Your task to perform on an android device: Go to wifi settings Image 0: 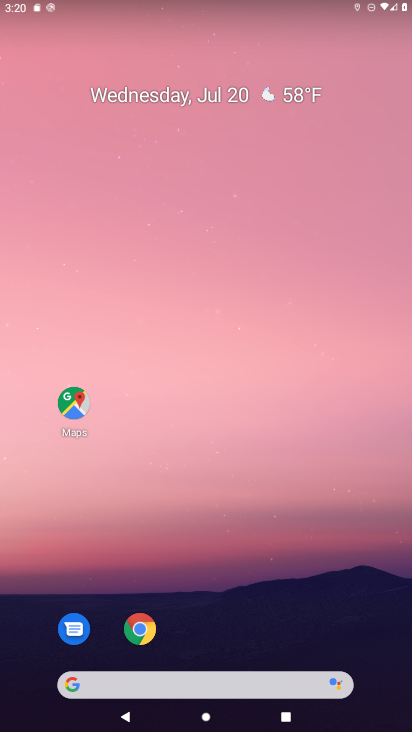
Step 0: drag from (191, 2) to (224, 459)
Your task to perform on an android device: Go to wifi settings Image 1: 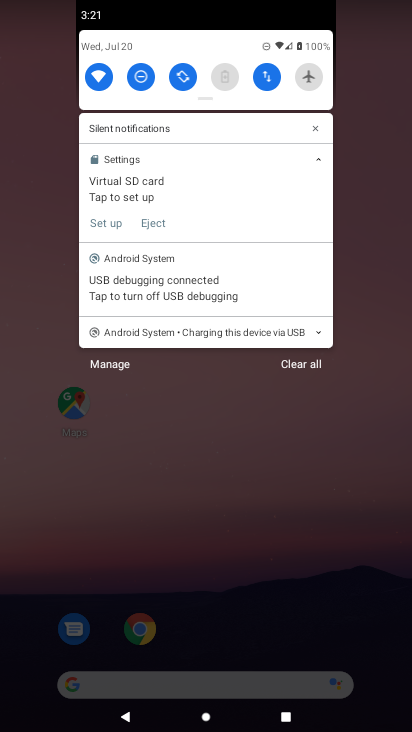
Step 1: click (98, 71)
Your task to perform on an android device: Go to wifi settings Image 2: 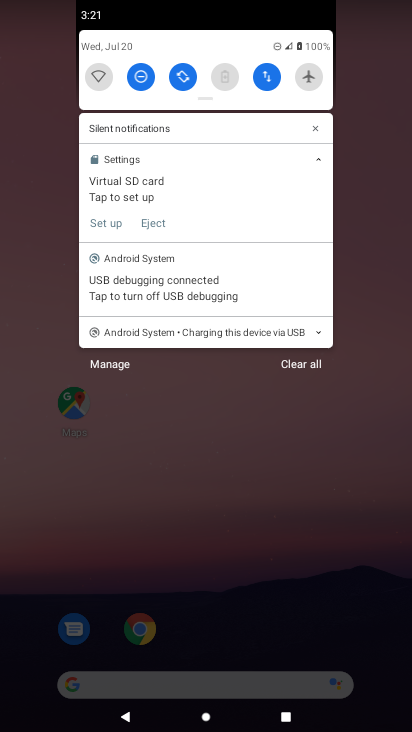
Step 2: click (98, 71)
Your task to perform on an android device: Go to wifi settings Image 3: 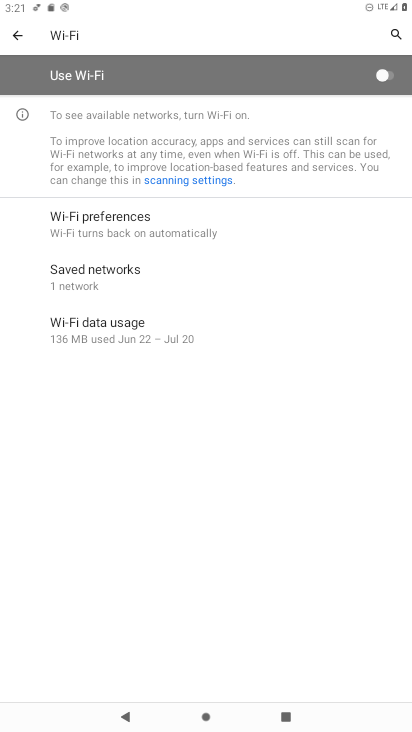
Step 3: click (230, 64)
Your task to perform on an android device: Go to wifi settings Image 4: 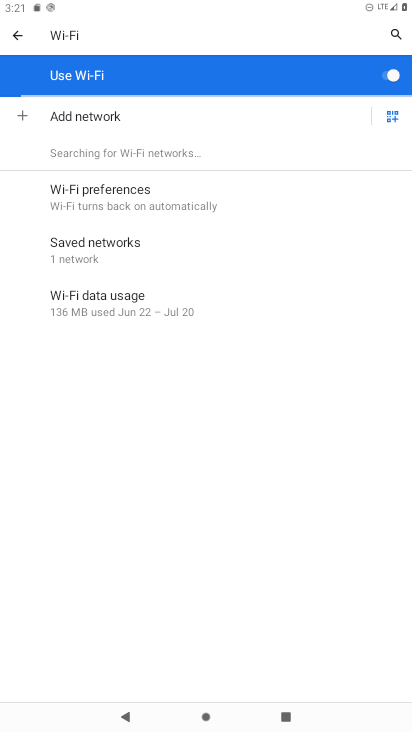
Step 4: task complete